Your task to perform on an android device: Open CNN.com Image 0: 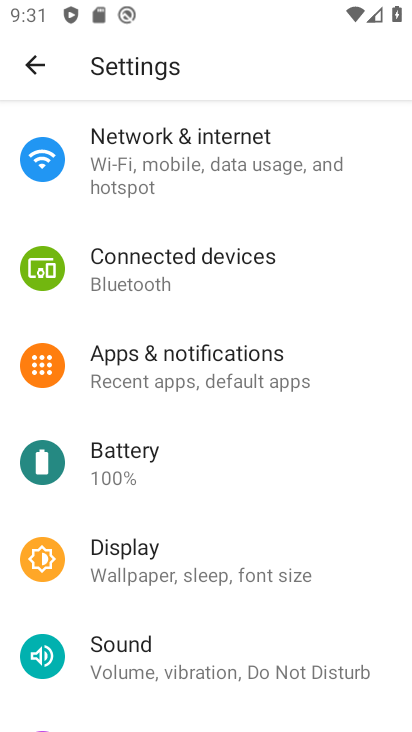
Step 0: press back button
Your task to perform on an android device: Open CNN.com Image 1: 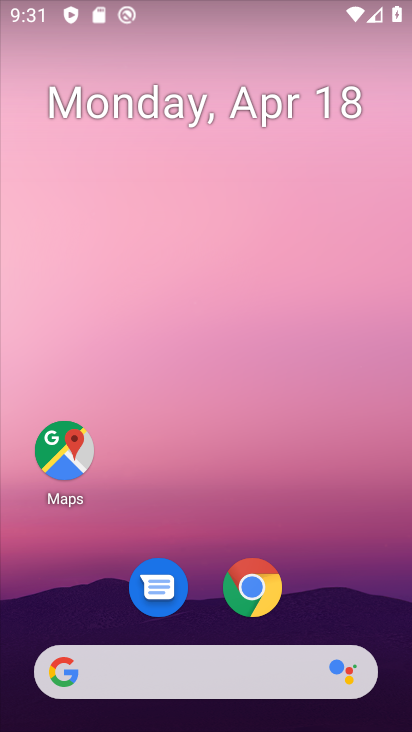
Step 1: click (249, 587)
Your task to perform on an android device: Open CNN.com Image 2: 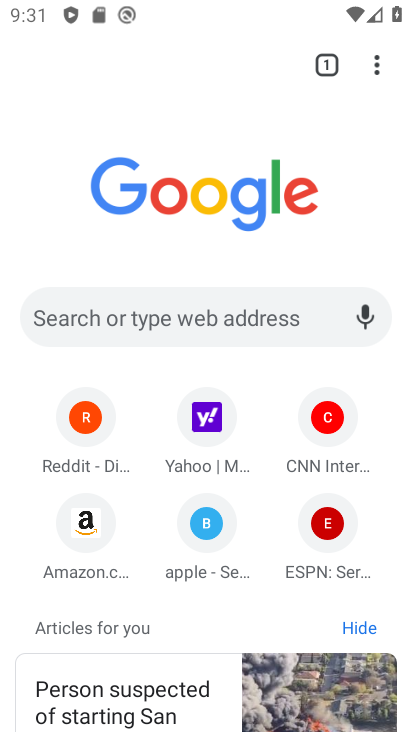
Step 2: click (328, 421)
Your task to perform on an android device: Open CNN.com Image 3: 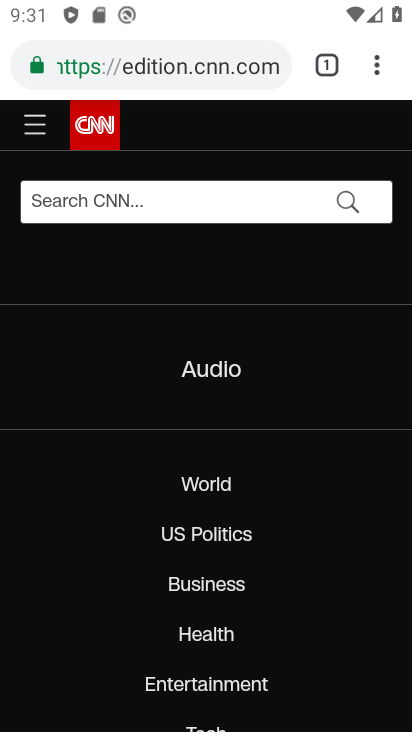
Step 3: task complete